Your task to perform on an android device: Open calendar and show me the third week of next month Image 0: 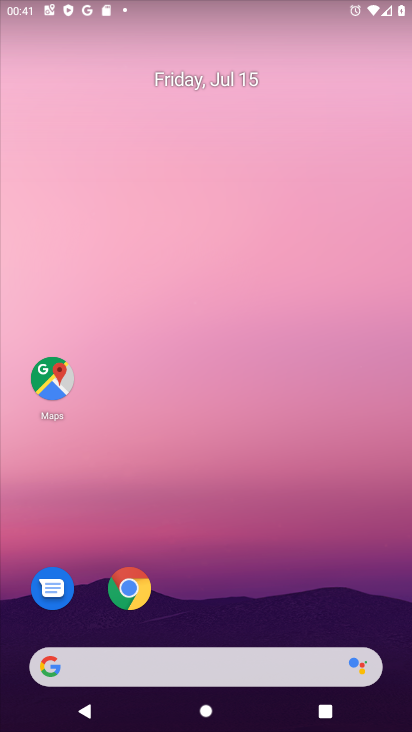
Step 0: press home button
Your task to perform on an android device: Open calendar and show me the third week of next month Image 1: 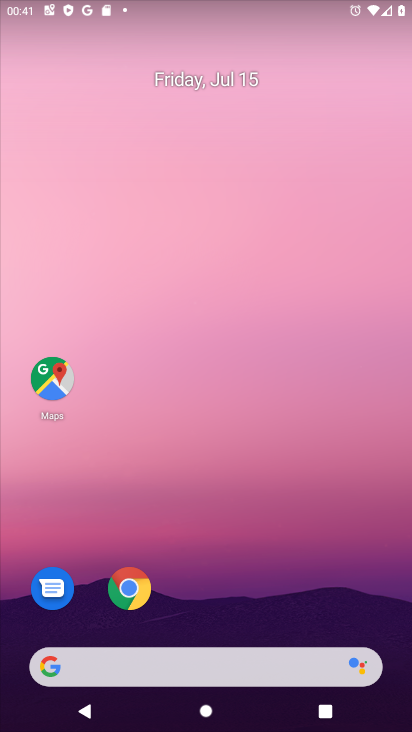
Step 1: drag from (168, 673) to (324, 47)
Your task to perform on an android device: Open calendar and show me the third week of next month Image 2: 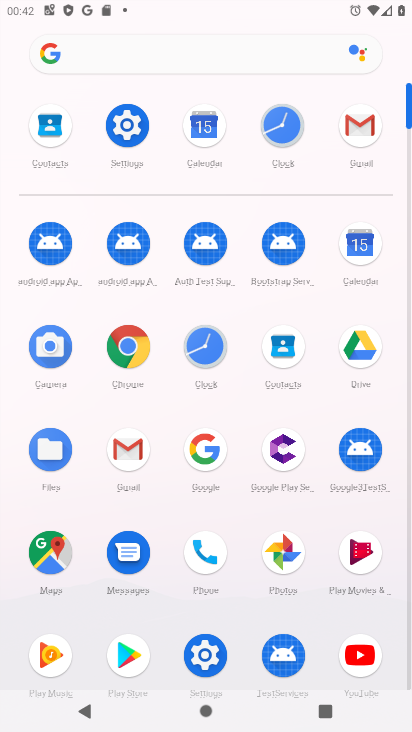
Step 2: click (206, 137)
Your task to perform on an android device: Open calendar and show me the third week of next month Image 3: 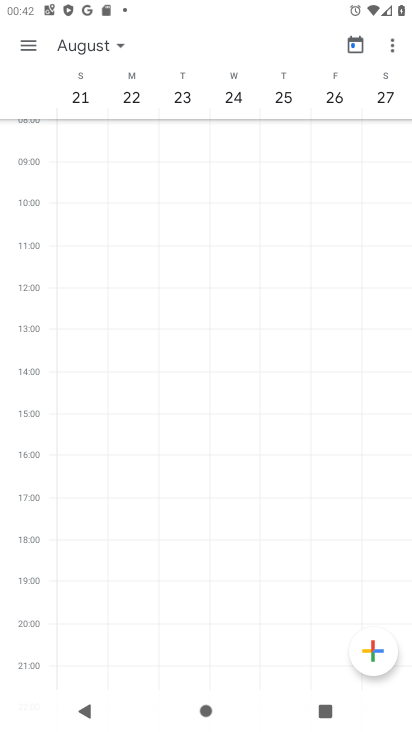
Step 3: click (93, 47)
Your task to perform on an android device: Open calendar and show me the third week of next month Image 4: 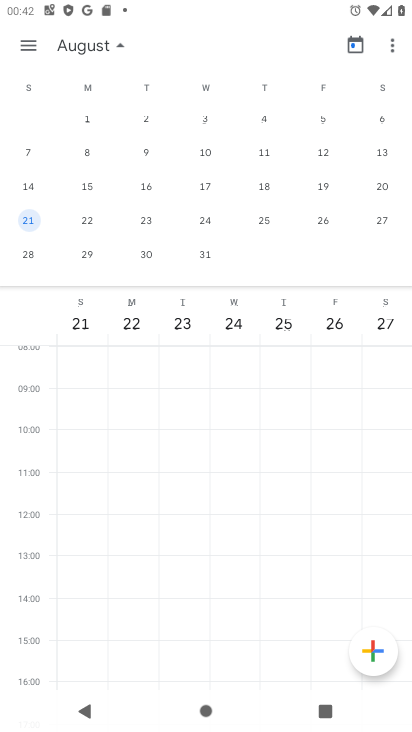
Step 4: click (23, 187)
Your task to perform on an android device: Open calendar and show me the third week of next month Image 5: 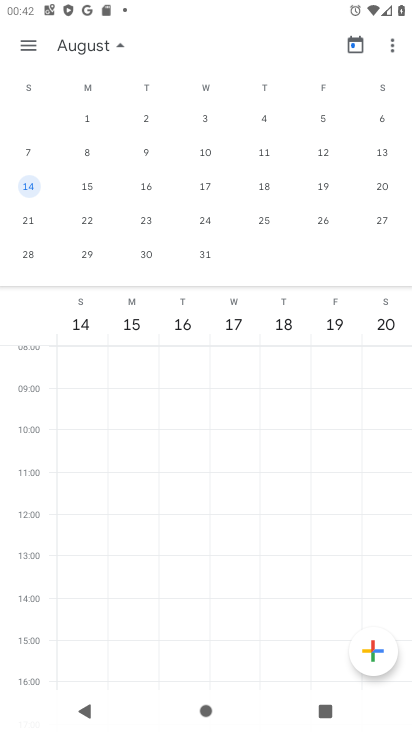
Step 5: click (32, 43)
Your task to perform on an android device: Open calendar and show me the third week of next month Image 6: 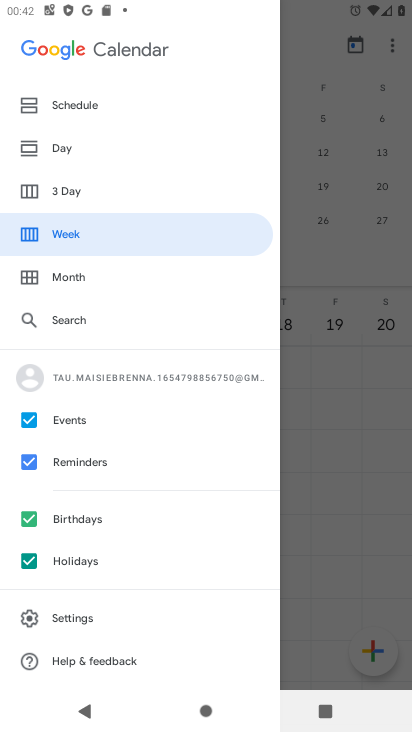
Step 6: click (83, 233)
Your task to perform on an android device: Open calendar and show me the third week of next month Image 7: 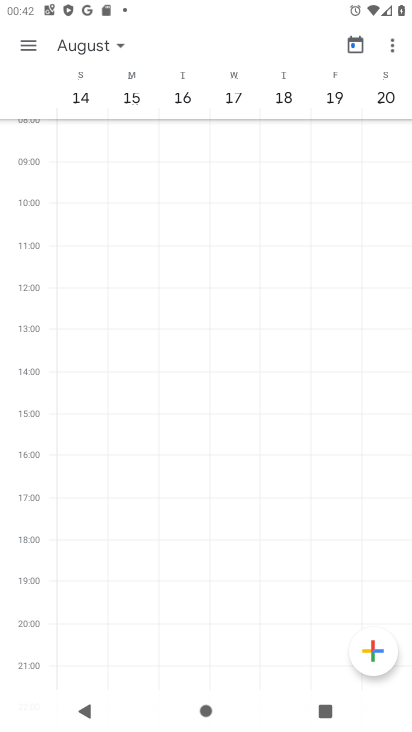
Step 7: task complete